Your task to perform on an android device: open app "Duolingo: language lessons" (install if not already installed) and go to login screen Image 0: 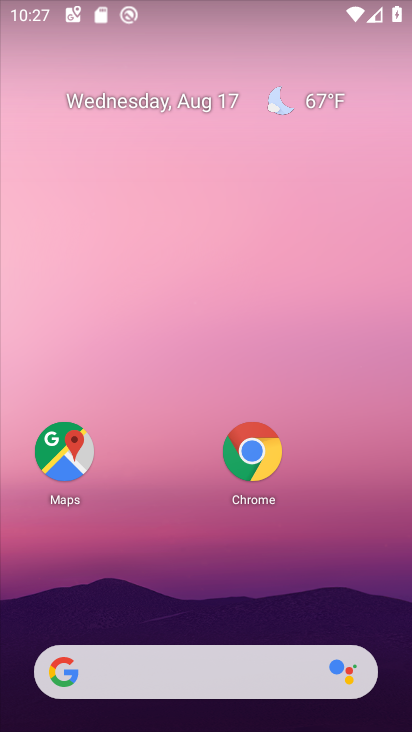
Step 0: drag from (179, 618) to (264, 126)
Your task to perform on an android device: open app "Duolingo: language lessons" (install if not already installed) and go to login screen Image 1: 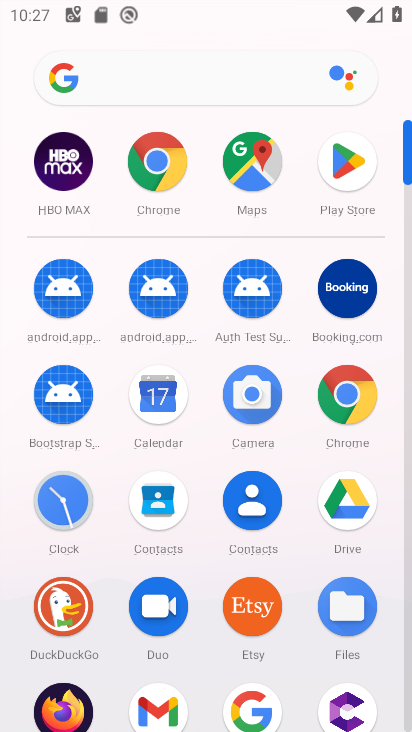
Step 1: click (338, 152)
Your task to perform on an android device: open app "Duolingo: language lessons" (install if not already installed) and go to login screen Image 2: 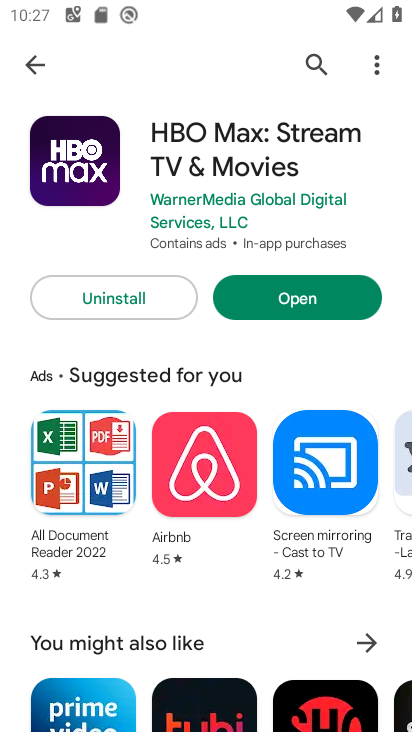
Step 2: click (31, 70)
Your task to perform on an android device: open app "Duolingo: language lessons" (install if not already installed) and go to login screen Image 3: 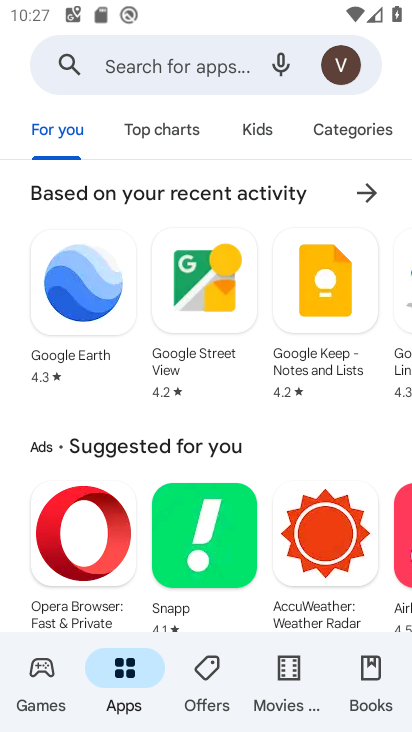
Step 3: click (172, 74)
Your task to perform on an android device: open app "Duolingo: language lessons" (install if not already installed) and go to login screen Image 4: 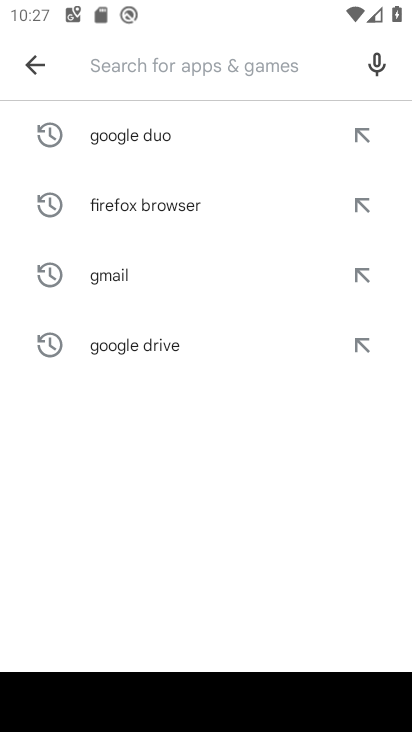
Step 4: type "Duolingo"
Your task to perform on an android device: open app "Duolingo: language lessons" (install if not already installed) and go to login screen Image 5: 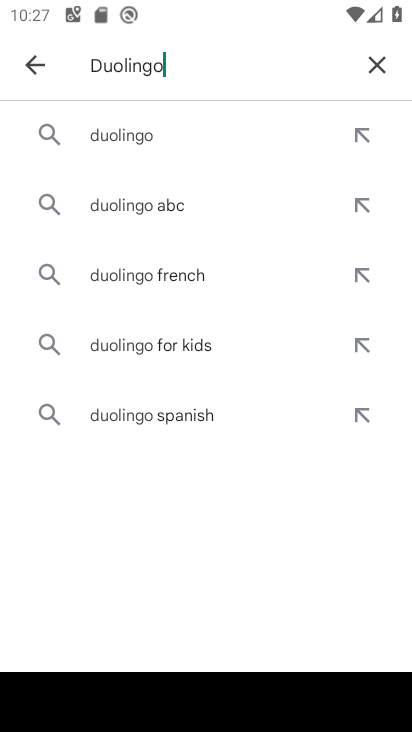
Step 5: click (108, 137)
Your task to perform on an android device: open app "Duolingo: language lessons" (install if not already installed) and go to login screen Image 6: 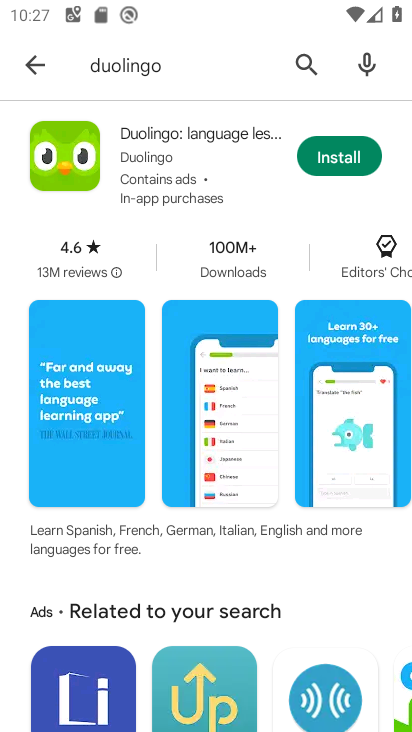
Step 6: click (323, 171)
Your task to perform on an android device: open app "Duolingo: language lessons" (install if not already installed) and go to login screen Image 7: 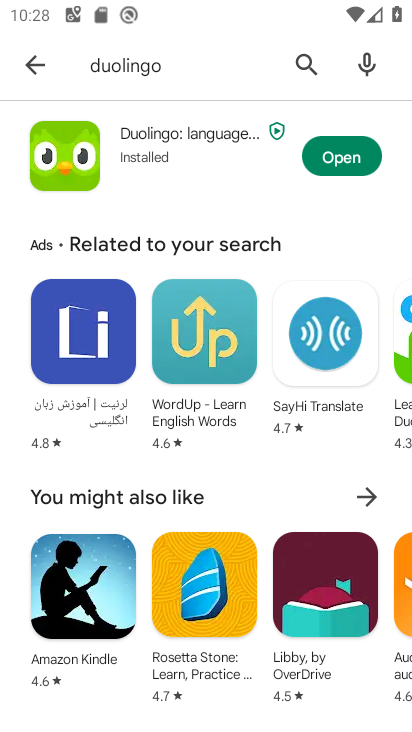
Step 7: click (351, 143)
Your task to perform on an android device: open app "Duolingo: language lessons" (install if not already installed) and go to login screen Image 8: 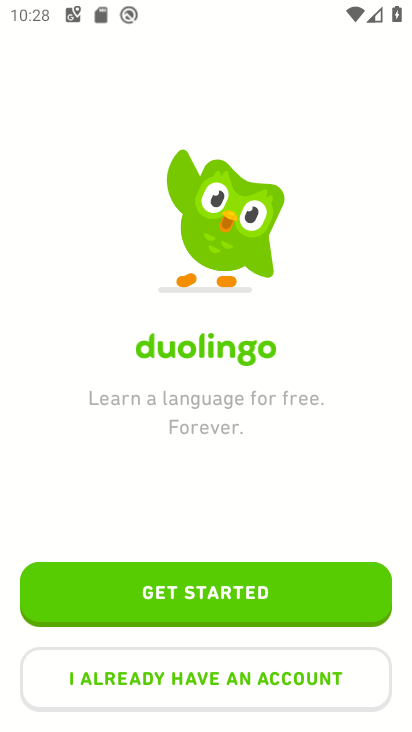
Step 8: drag from (187, 578) to (211, 379)
Your task to perform on an android device: open app "Duolingo: language lessons" (install if not already installed) and go to login screen Image 9: 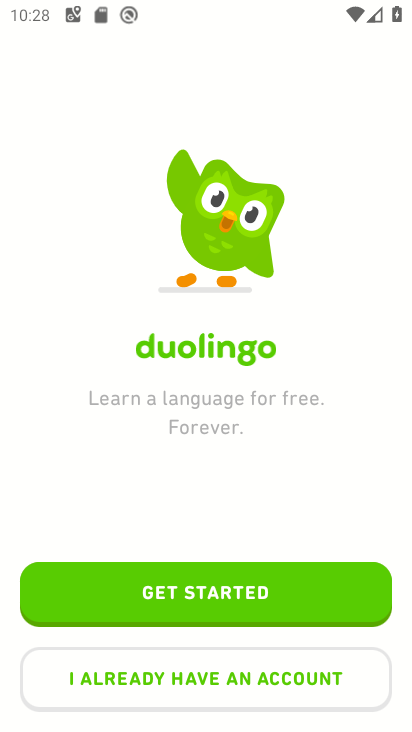
Step 9: click (188, 615)
Your task to perform on an android device: open app "Duolingo: language lessons" (install if not already installed) and go to login screen Image 10: 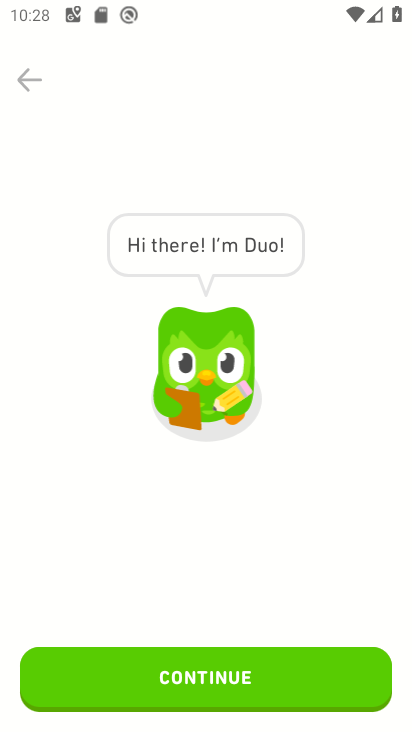
Step 10: click (185, 703)
Your task to perform on an android device: open app "Duolingo: language lessons" (install if not already installed) and go to login screen Image 11: 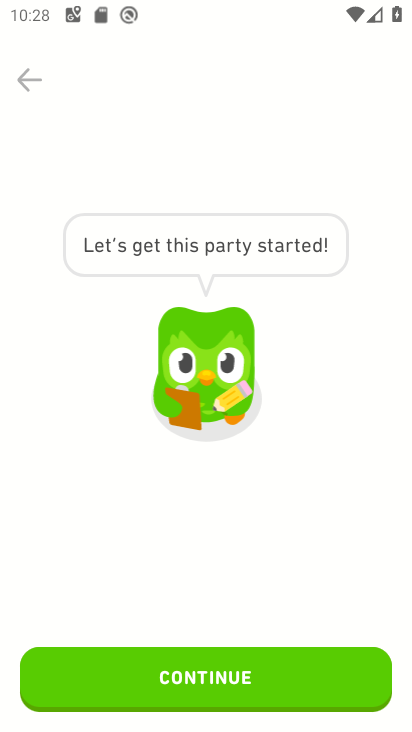
Step 11: click (185, 703)
Your task to perform on an android device: open app "Duolingo: language lessons" (install if not already installed) and go to login screen Image 12: 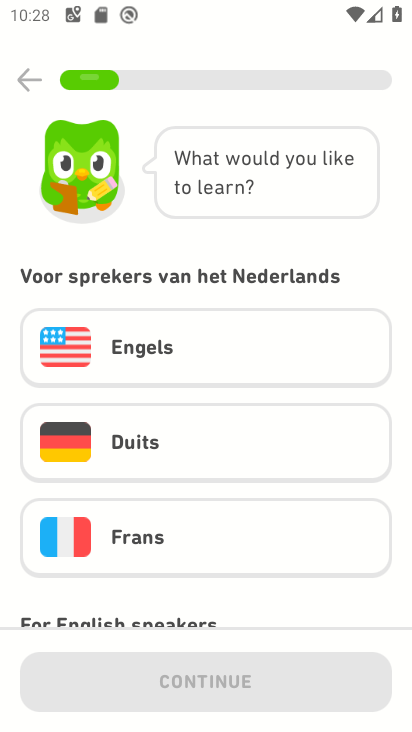
Step 12: task complete